Your task to perform on an android device: Open Chrome and go to the settings page Image 0: 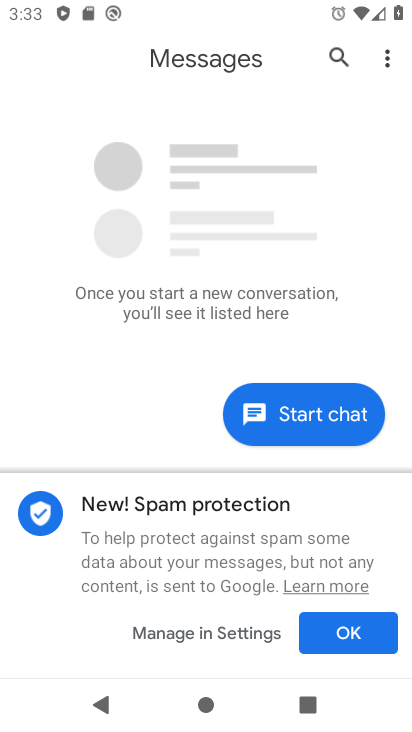
Step 0: press home button
Your task to perform on an android device: Open Chrome and go to the settings page Image 1: 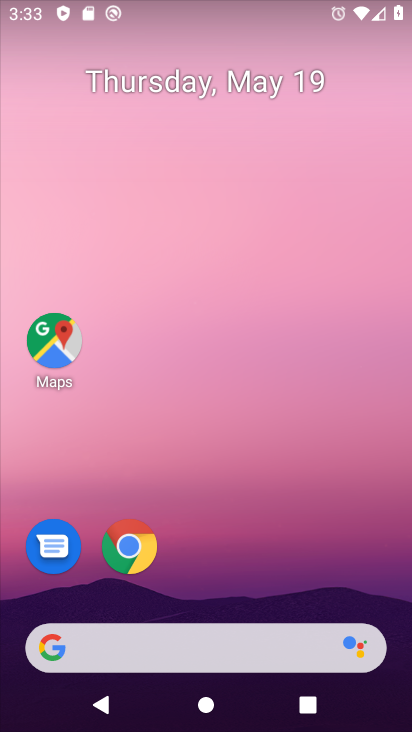
Step 1: click (127, 536)
Your task to perform on an android device: Open Chrome and go to the settings page Image 2: 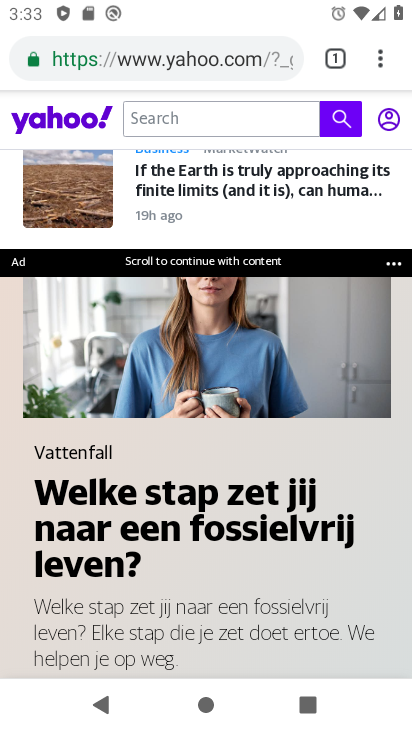
Step 2: click (384, 52)
Your task to perform on an android device: Open Chrome and go to the settings page Image 3: 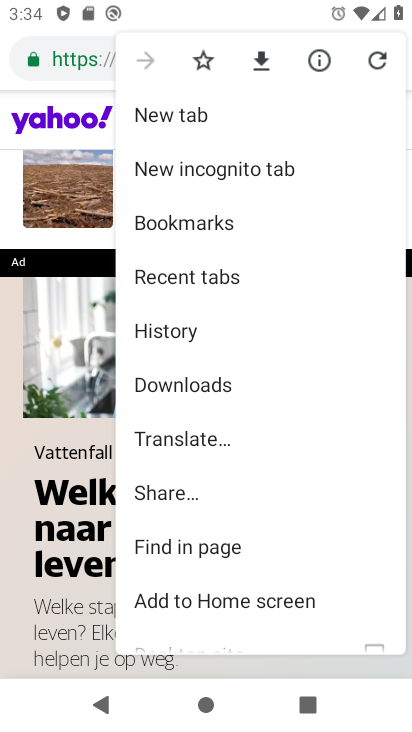
Step 3: drag from (263, 555) to (279, 131)
Your task to perform on an android device: Open Chrome and go to the settings page Image 4: 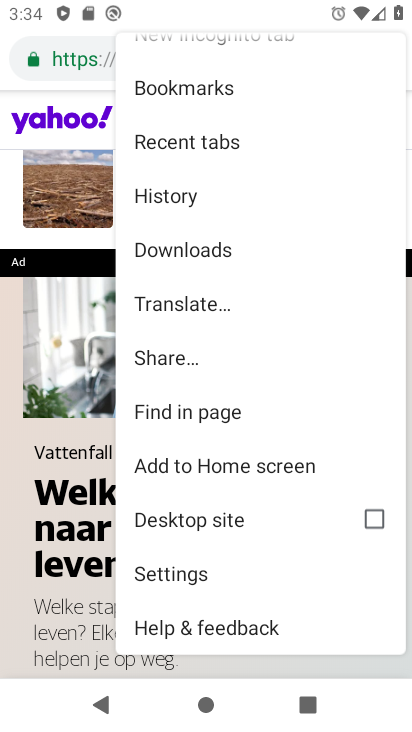
Step 4: click (216, 570)
Your task to perform on an android device: Open Chrome and go to the settings page Image 5: 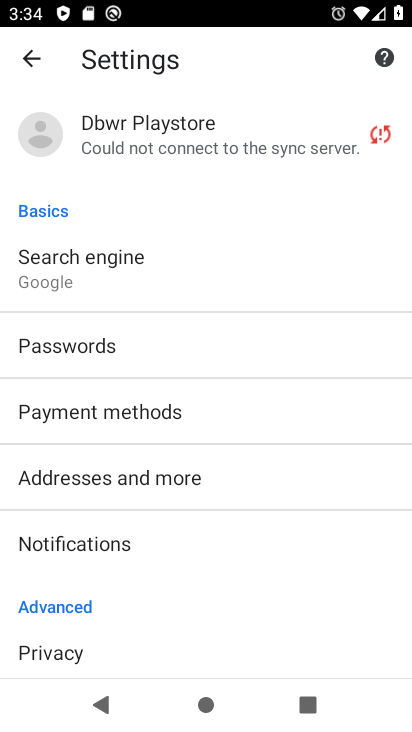
Step 5: task complete